Your task to perform on an android device: Go to battery settings Image 0: 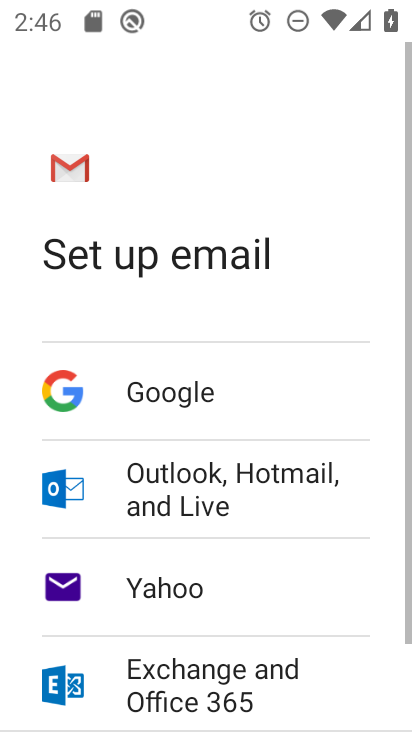
Step 0: press home button
Your task to perform on an android device: Go to battery settings Image 1: 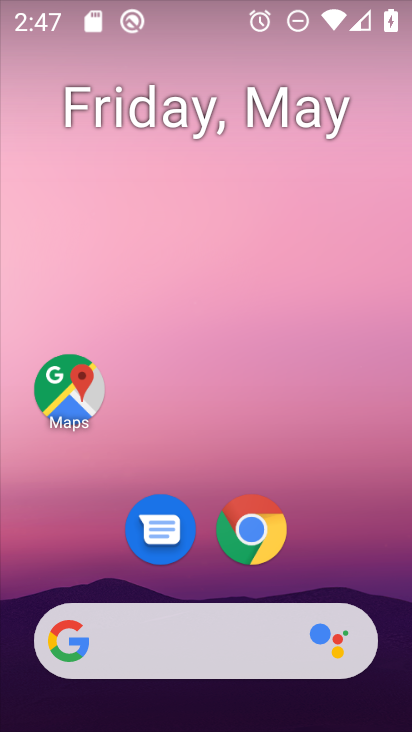
Step 1: drag from (400, 596) to (391, 320)
Your task to perform on an android device: Go to battery settings Image 2: 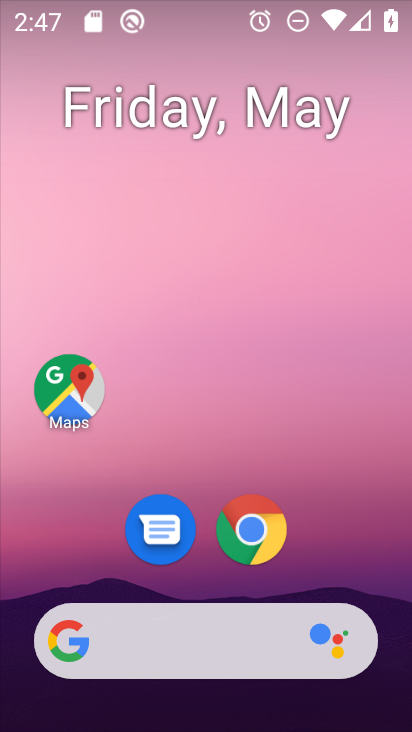
Step 2: drag from (399, 711) to (384, 298)
Your task to perform on an android device: Go to battery settings Image 3: 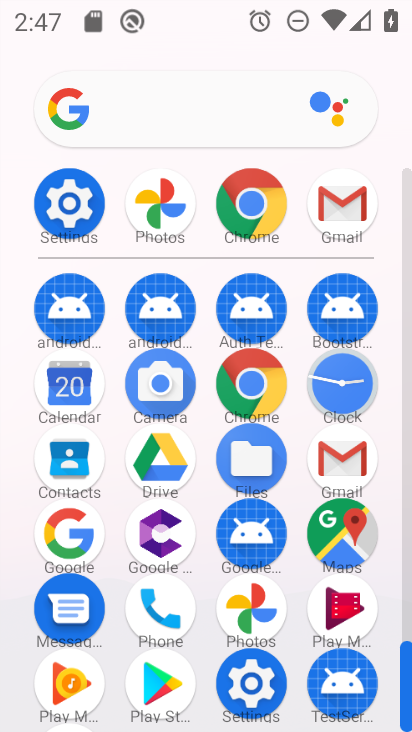
Step 3: click (73, 196)
Your task to perform on an android device: Go to battery settings Image 4: 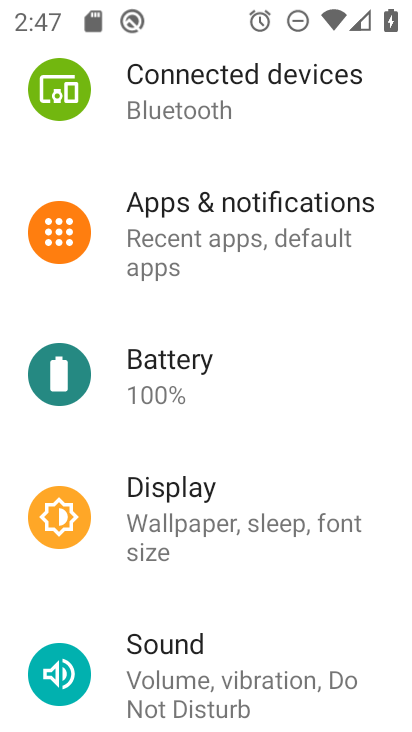
Step 4: click (163, 374)
Your task to perform on an android device: Go to battery settings Image 5: 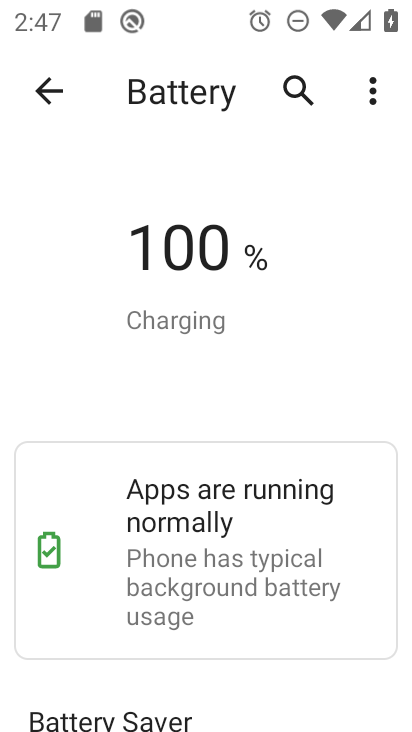
Step 5: task complete